Your task to perform on an android device: toggle notifications settings in the gmail app Image 0: 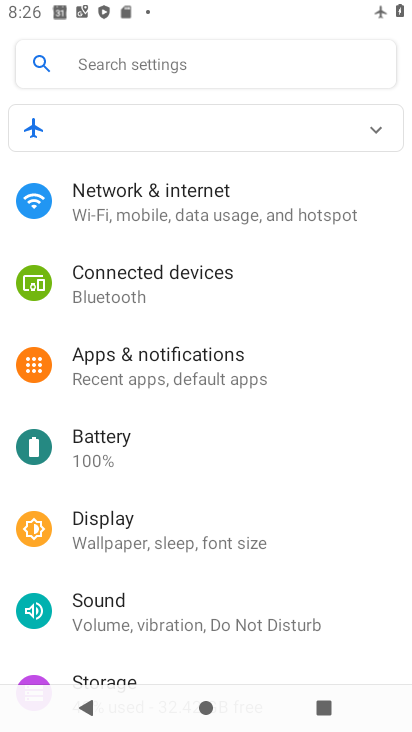
Step 0: press home button
Your task to perform on an android device: toggle notifications settings in the gmail app Image 1: 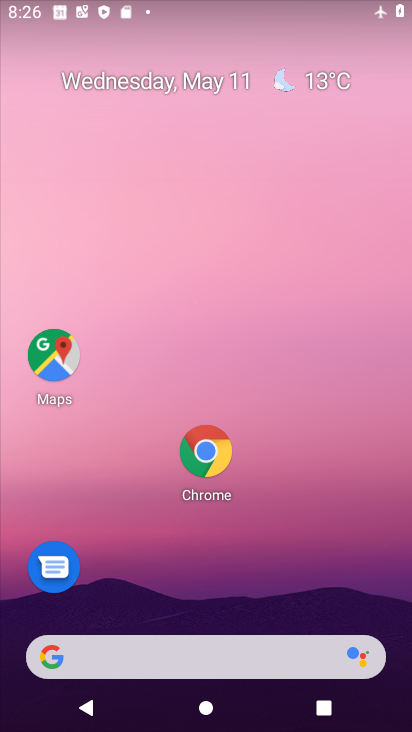
Step 1: drag from (190, 652) to (288, 265)
Your task to perform on an android device: toggle notifications settings in the gmail app Image 2: 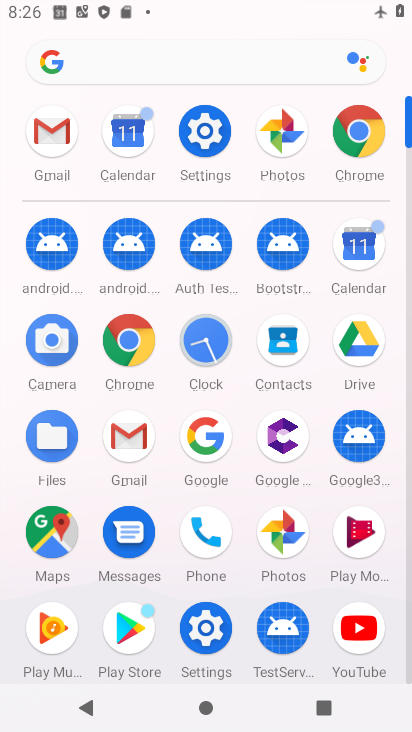
Step 2: click (51, 143)
Your task to perform on an android device: toggle notifications settings in the gmail app Image 3: 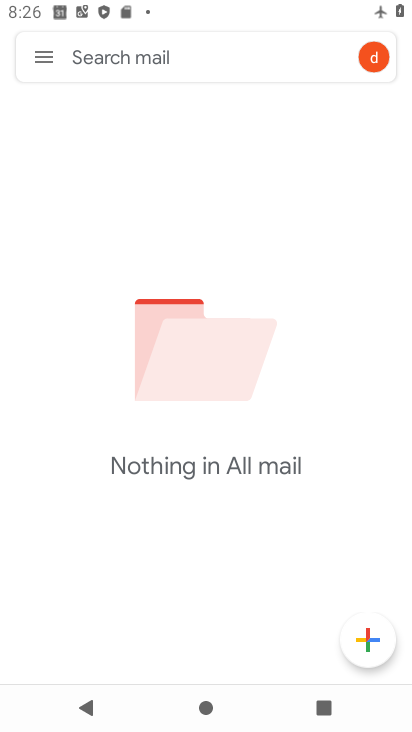
Step 3: click (45, 53)
Your task to perform on an android device: toggle notifications settings in the gmail app Image 4: 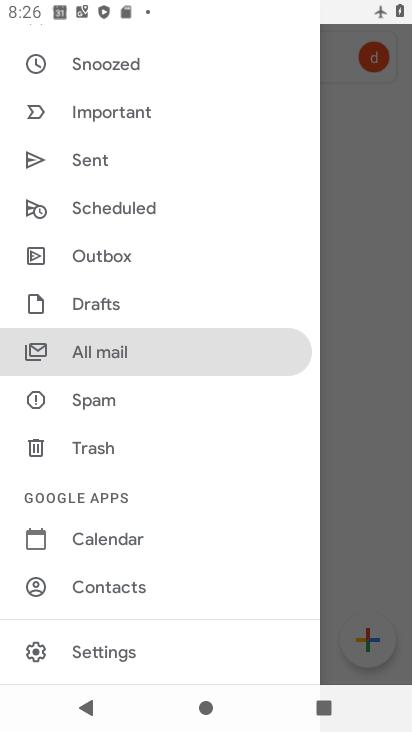
Step 4: drag from (172, 594) to (306, 260)
Your task to perform on an android device: toggle notifications settings in the gmail app Image 5: 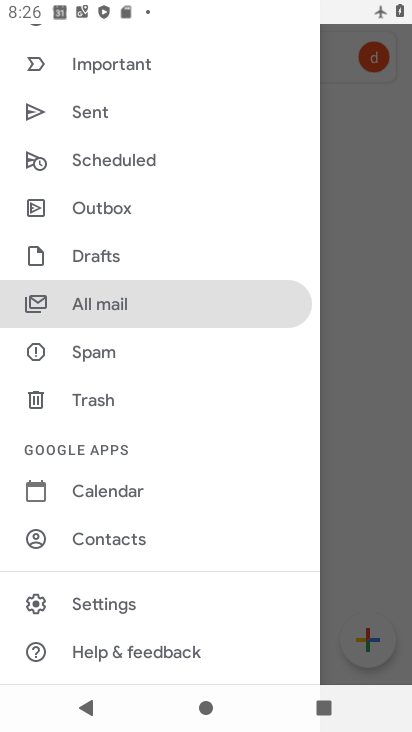
Step 5: click (107, 603)
Your task to perform on an android device: toggle notifications settings in the gmail app Image 6: 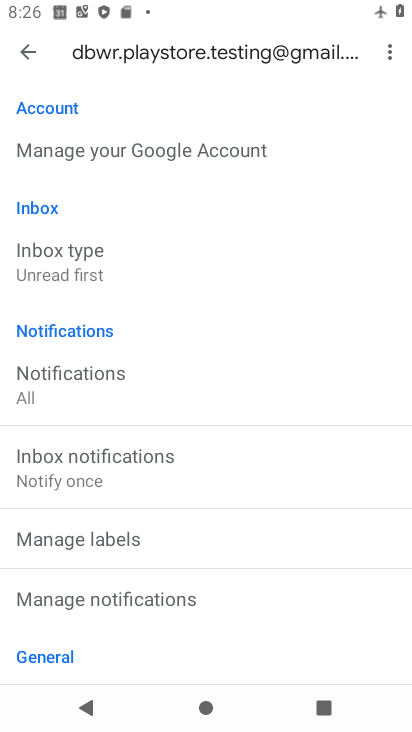
Step 6: click (91, 383)
Your task to perform on an android device: toggle notifications settings in the gmail app Image 7: 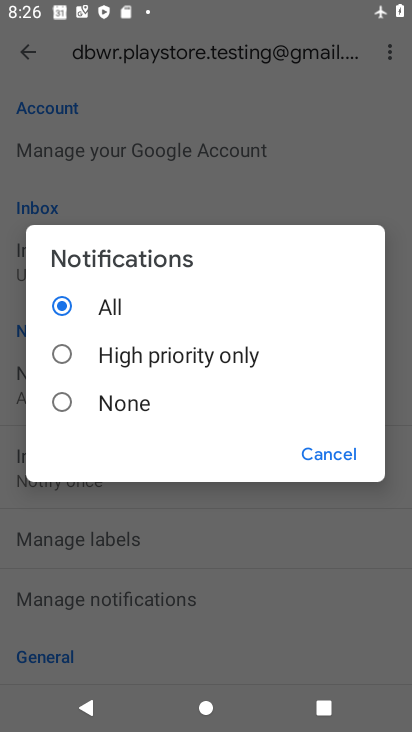
Step 7: click (59, 404)
Your task to perform on an android device: toggle notifications settings in the gmail app Image 8: 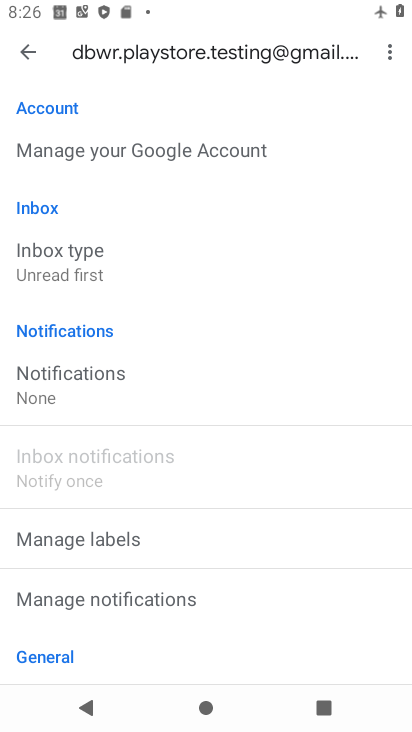
Step 8: task complete